Your task to perform on an android device: turn on the 24-hour format for clock Image 0: 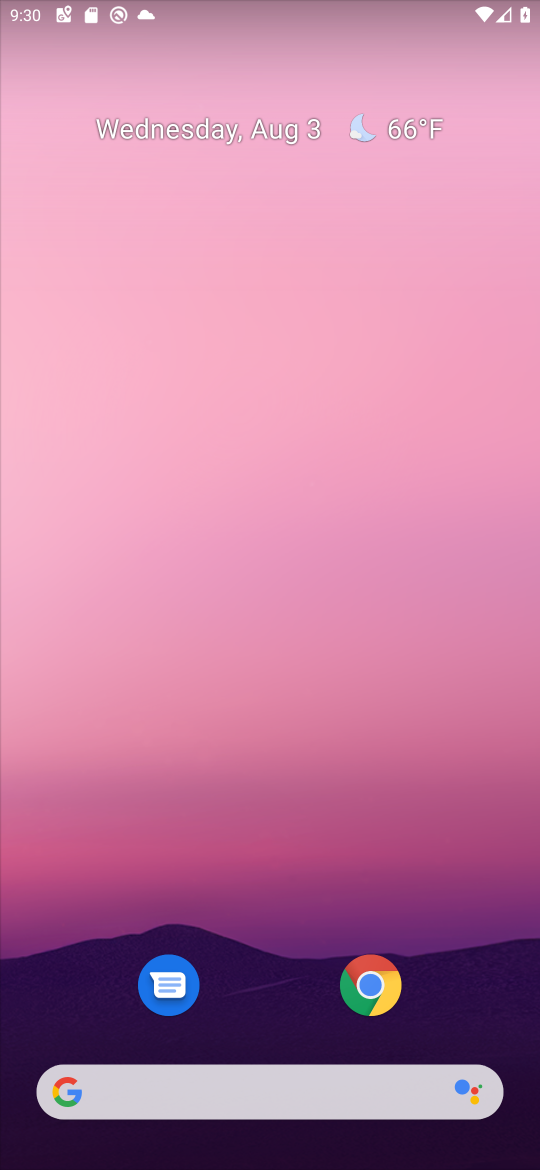
Step 0: drag from (272, 850) to (272, 452)
Your task to perform on an android device: turn on the 24-hour format for clock Image 1: 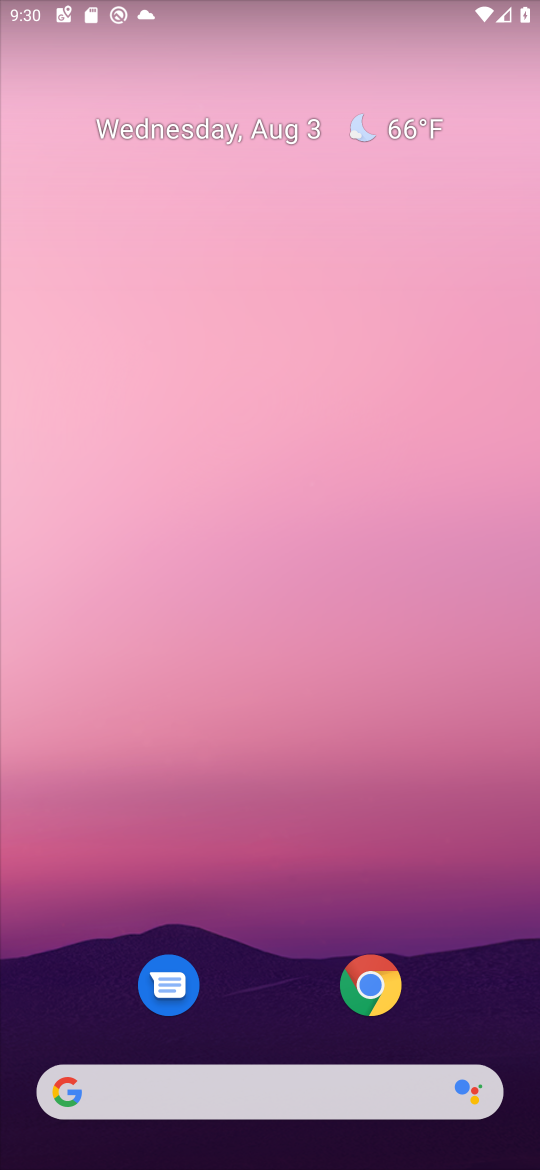
Step 1: drag from (237, 785) to (237, 269)
Your task to perform on an android device: turn on the 24-hour format for clock Image 2: 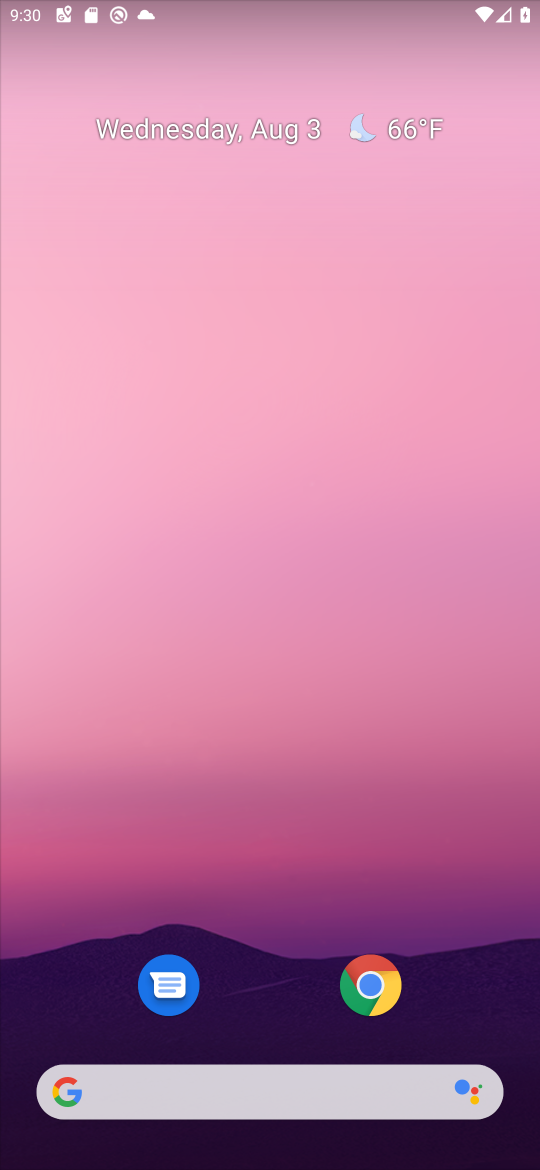
Step 2: drag from (245, 934) to (279, 269)
Your task to perform on an android device: turn on the 24-hour format for clock Image 3: 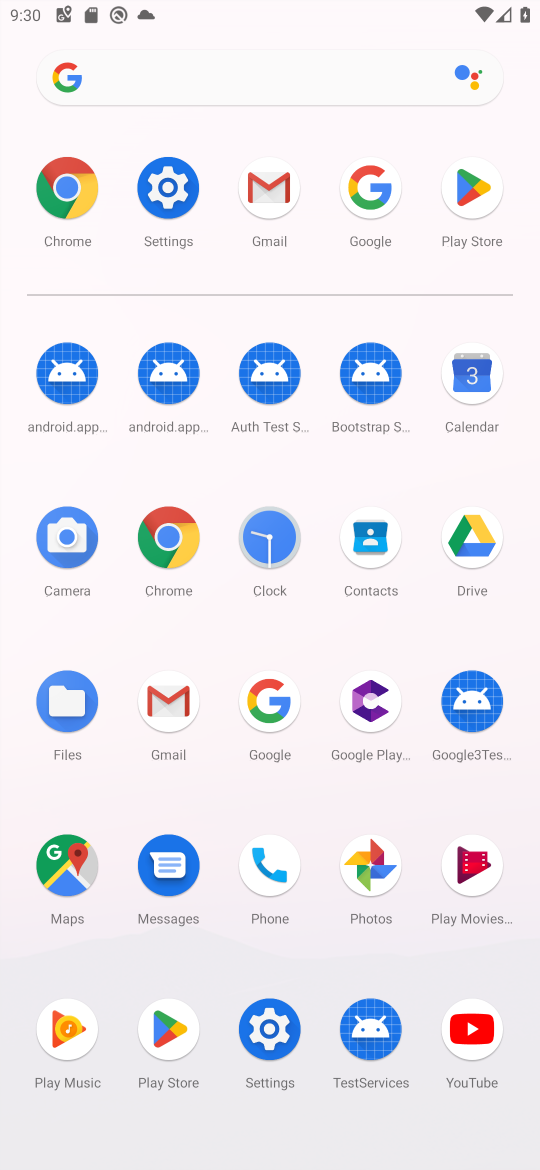
Step 3: click (264, 540)
Your task to perform on an android device: turn on the 24-hour format for clock Image 4: 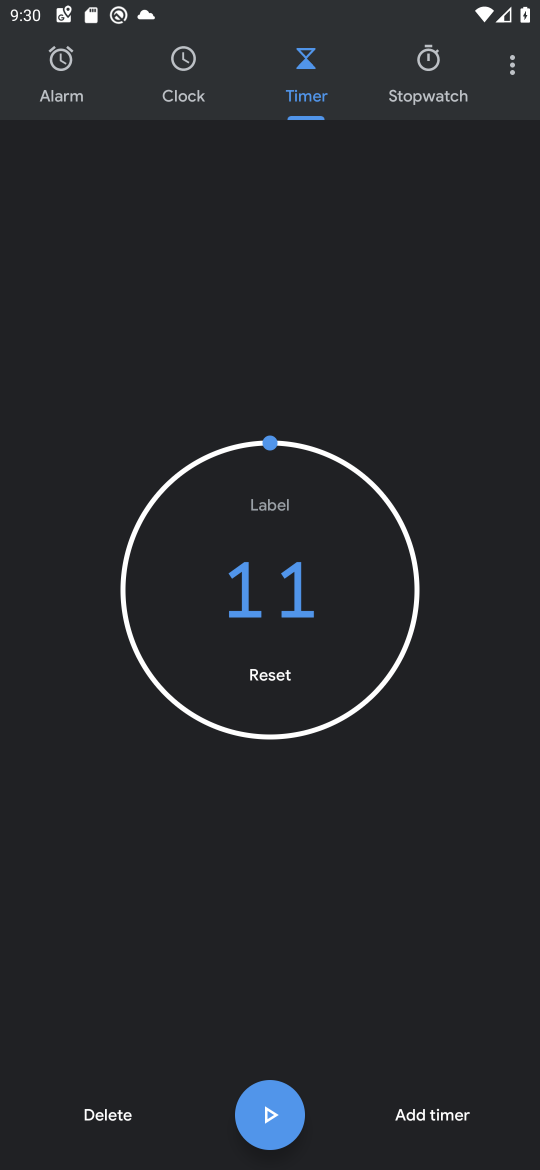
Step 4: click (504, 71)
Your task to perform on an android device: turn on the 24-hour format for clock Image 5: 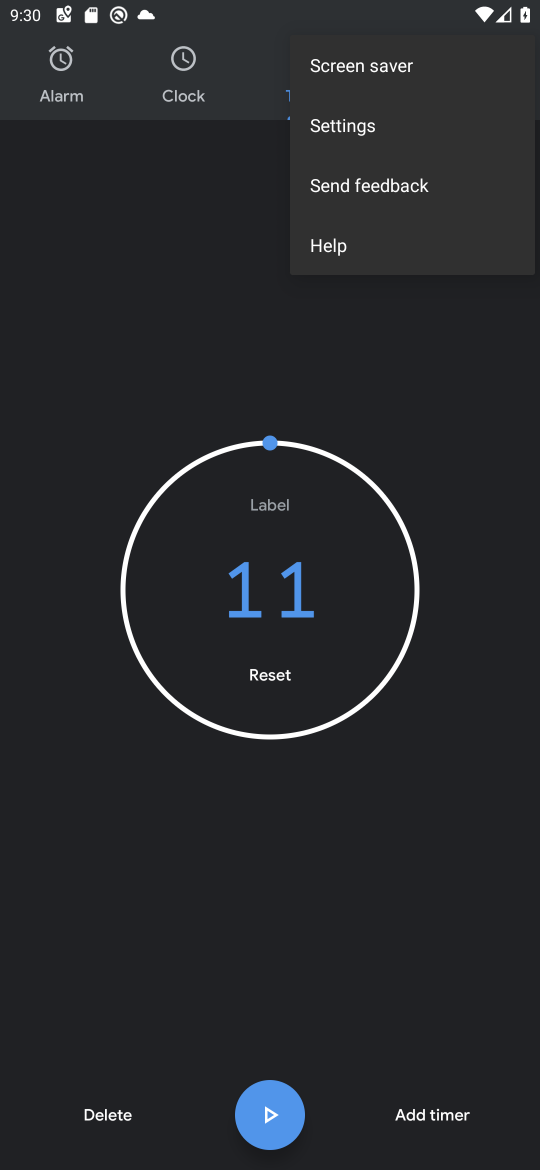
Step 5: click (357, 146)
Your task to perform on an android device: turn on the 24-hour format for clock Image 6: 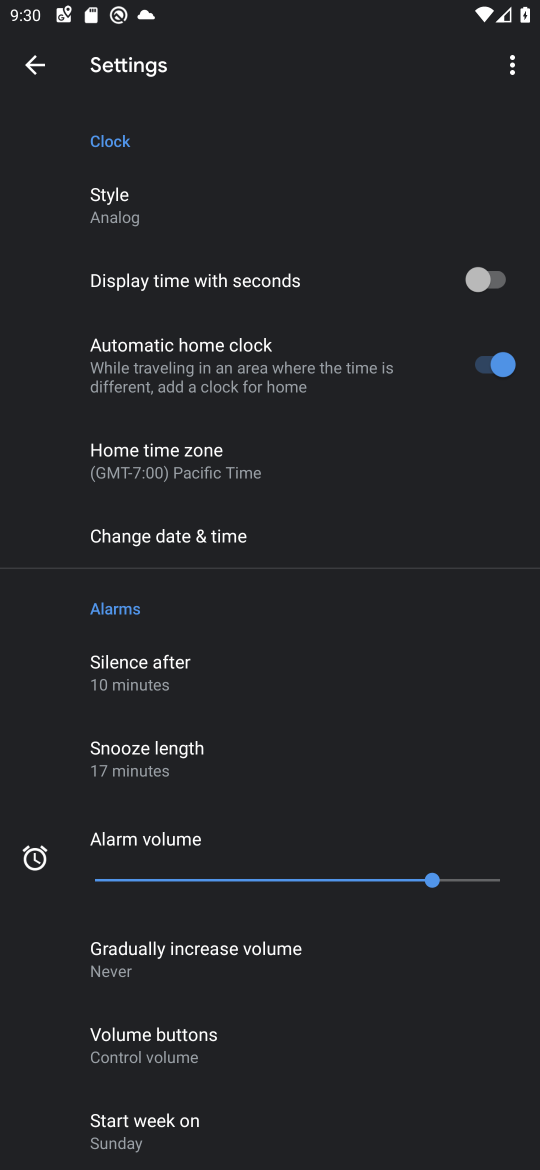
Step 6: click (249, 528)
Your task to perform on an android device: turn on the 24-hour format for clock Image 7: 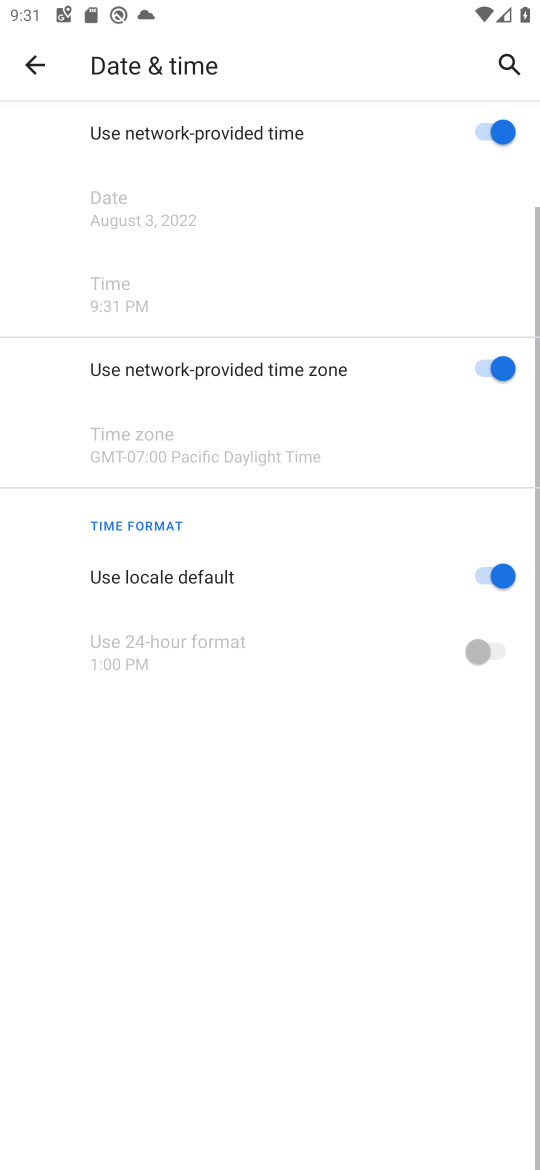
Step 7: click (486, 645)
Your task to perform on an android device: turn on the 24-hour format for clock Image 8: 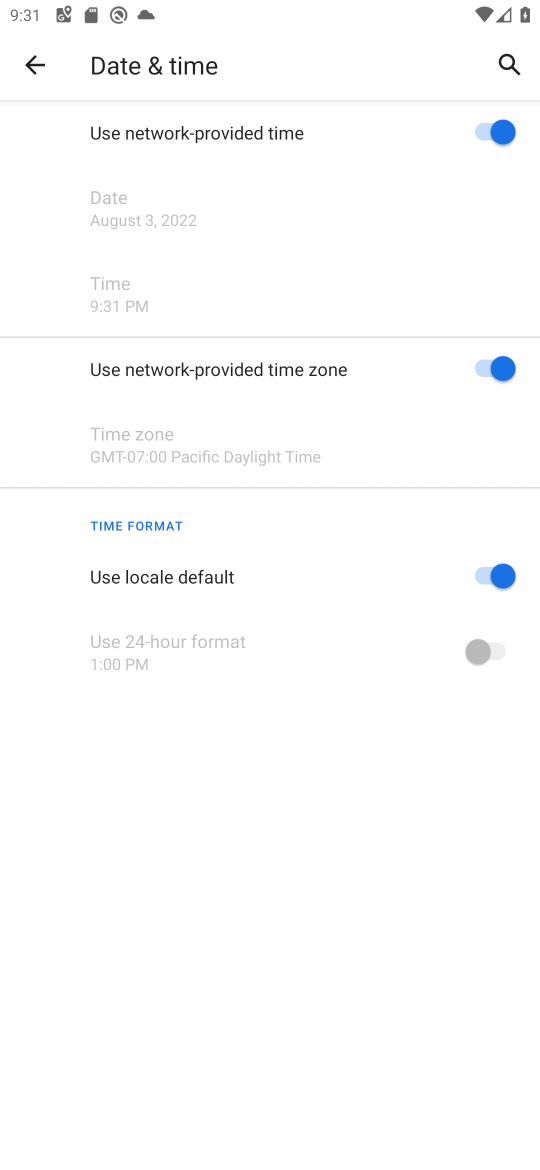
Step 8: click (470, 568)
Your task to perform on an android device: turn on the 24-hour format for clock Image 9: 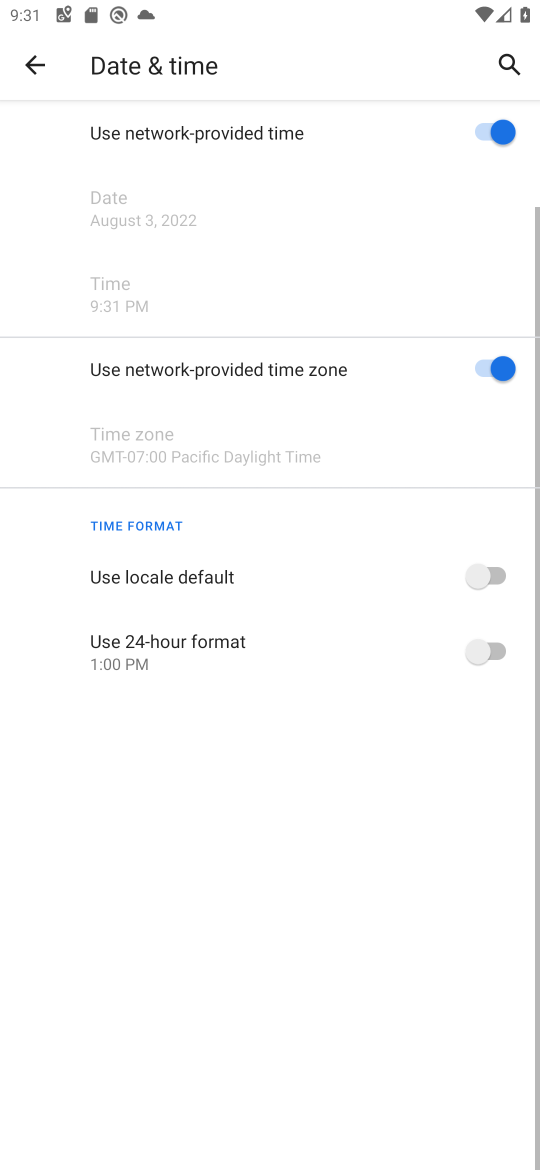
Step 9: click (506, 654)
Your task to perform on an android device: turn on the 24-hour format for clock Image 10: 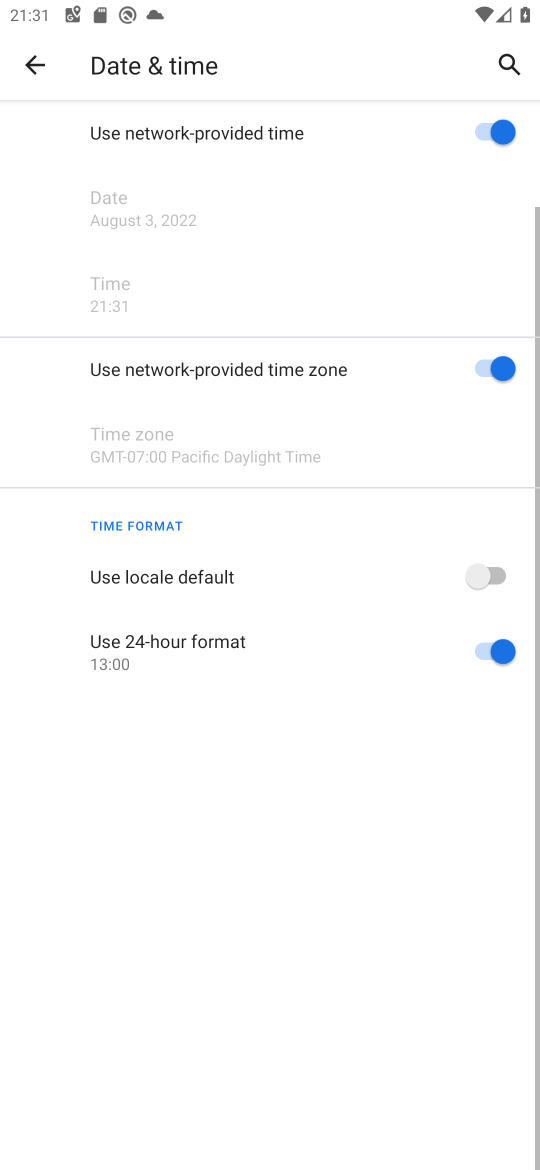
Step 10: task complete